Your task to perform on an android device: move an email to a new category in the gmail app Image 0: 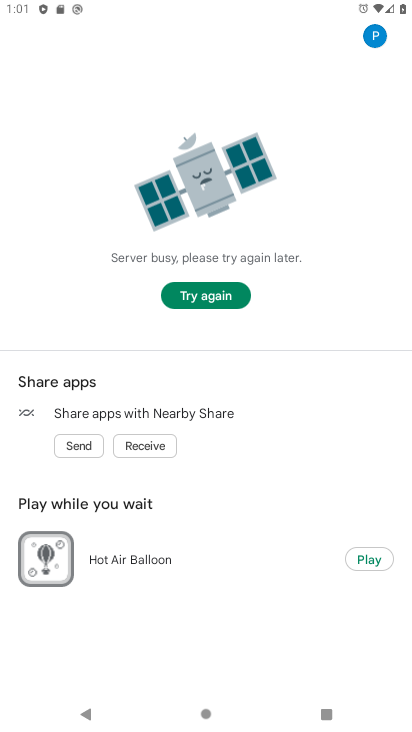
Step 0: press home button
Your task to perform on an android device: move an email to a new category in the gmail app Image 1: 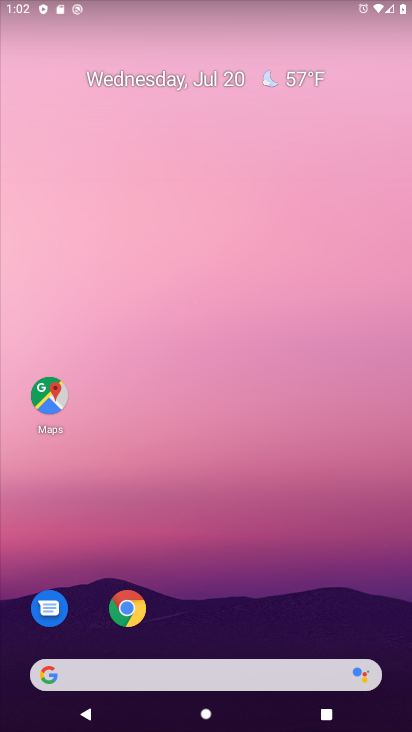
Step 1: drag from (263, 687) to (358, 223)
Your task to perform on an android device: move an email to a new category in the gmail app Image 2: 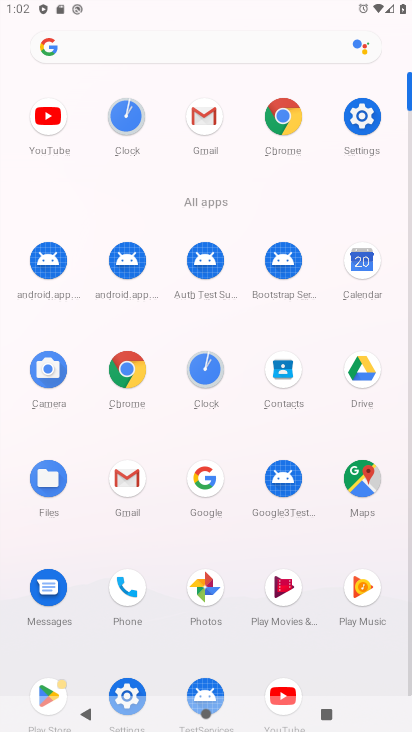
Step 2: click (209, 125)
Your task to perform on an android device: move an email to a new category in the gmail app Image 3: 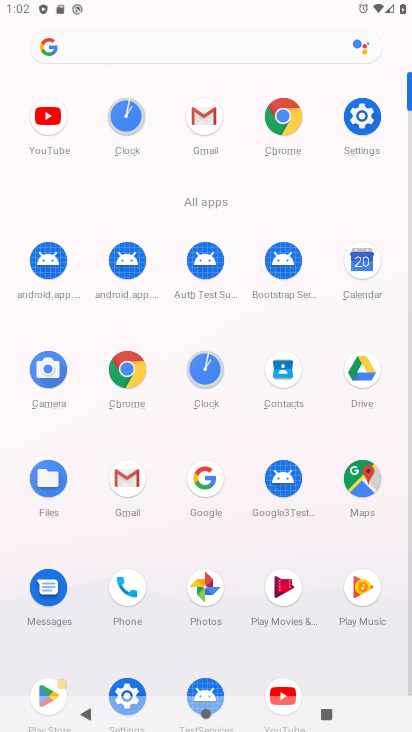
Step 3: click (209, 125)
Your task to perform on an android device: move an email to a new category in the gmail app Image 4: 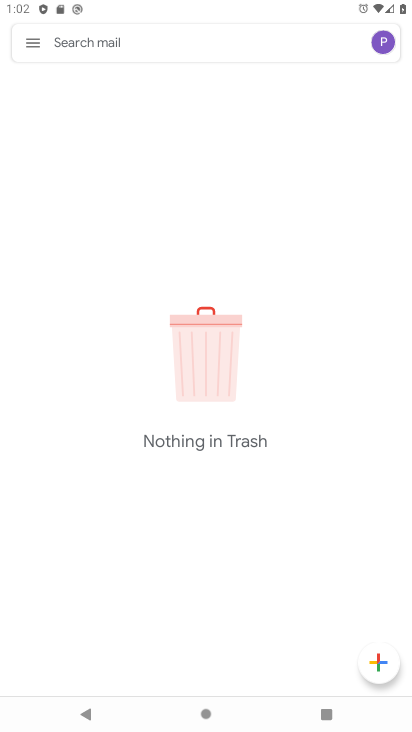
Step 4: click (34, 46)
Your task to perform on an android device: move an email to a new category in the gmail app Image 5: 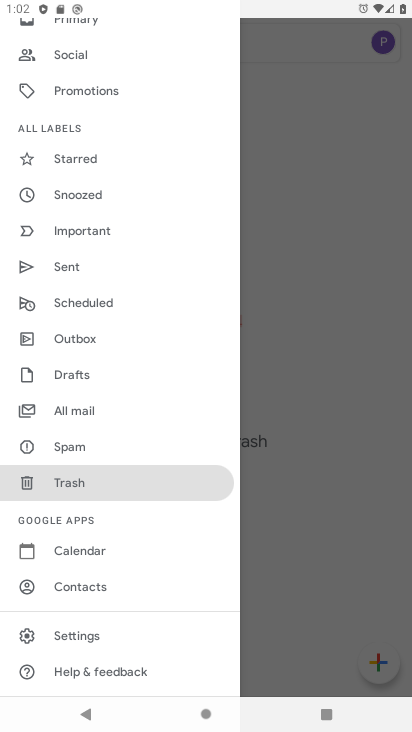
Step 5: click (98, 409)
Your task to perform on an android device: move an email to a new category in the gmail app Image 6: 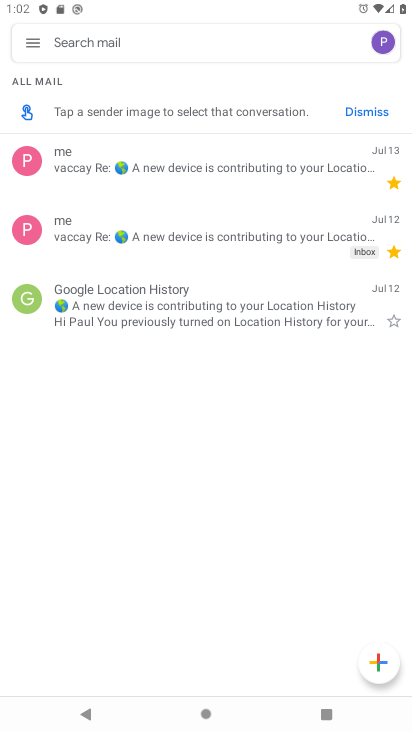
Step 6: click (274, 301)
Your task to perform on an android device: move an email to a new category in the gmail app Image 7: 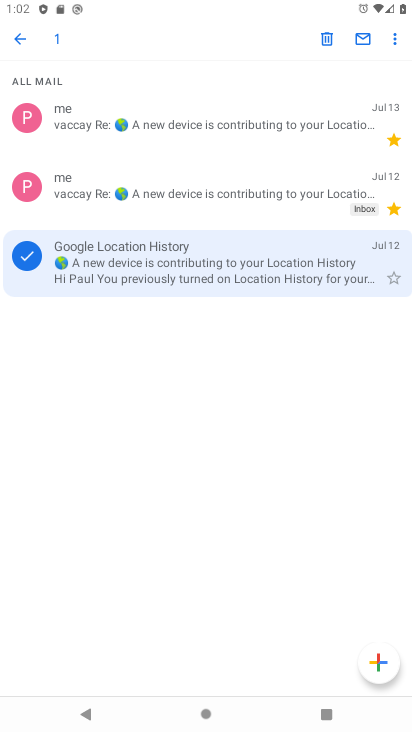
Step 7: click (392, 31)
Your task to perform on an android device: move an email to a new category in the gmail app Image 8: 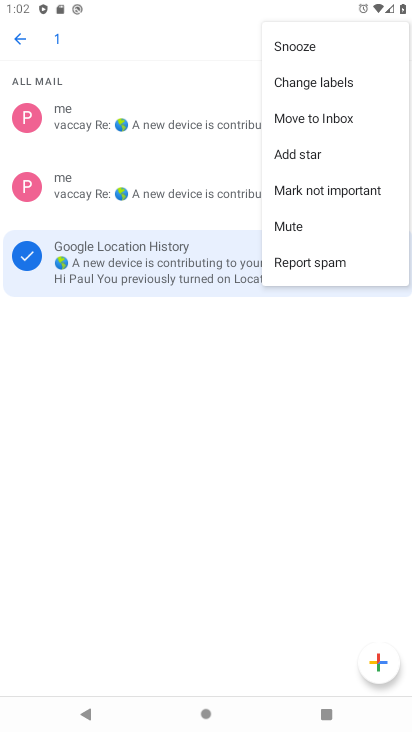
Step 8: click (334, 120)
Your task to perform on an android device: move an email to a new category in the gmail app Image 9: 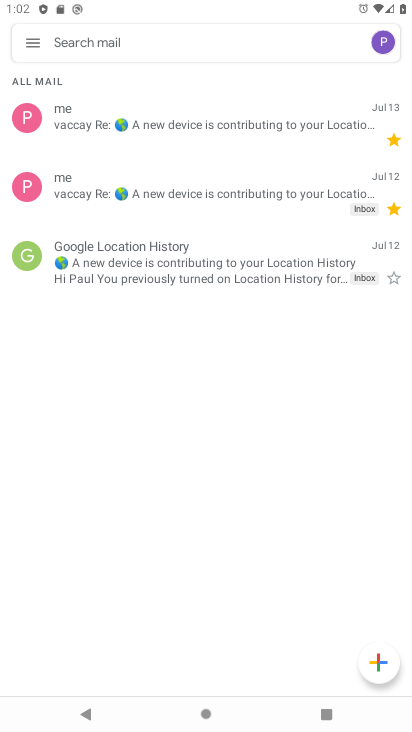
Step 9: task complete